Your task to perform on an android device: Look up the top rated headphones on Amazon. Image 0: 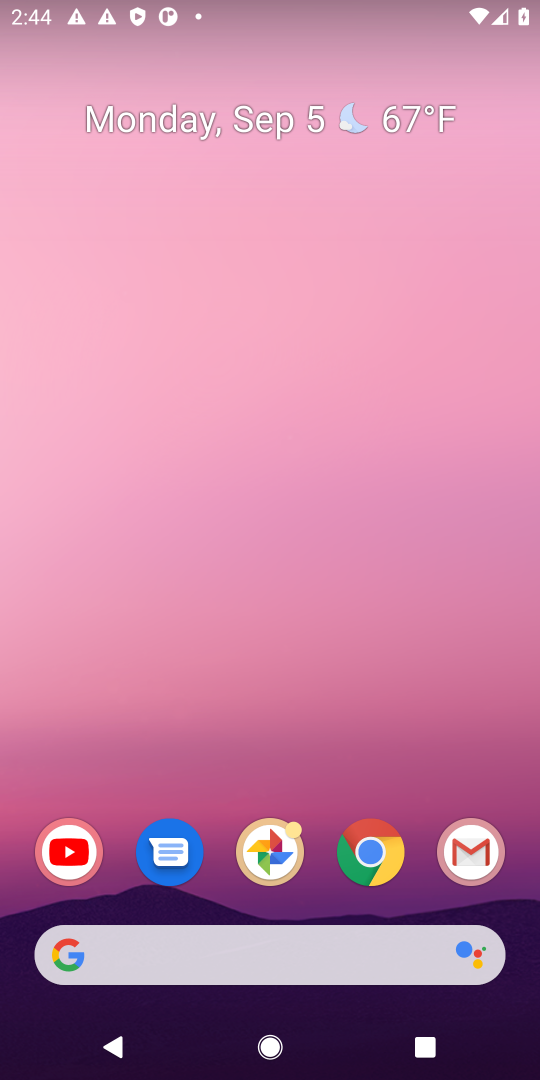
Step 0: click (367, 855)
Your task to perform on an android device: Look up the top rated headphones on Amazon. Image 1: 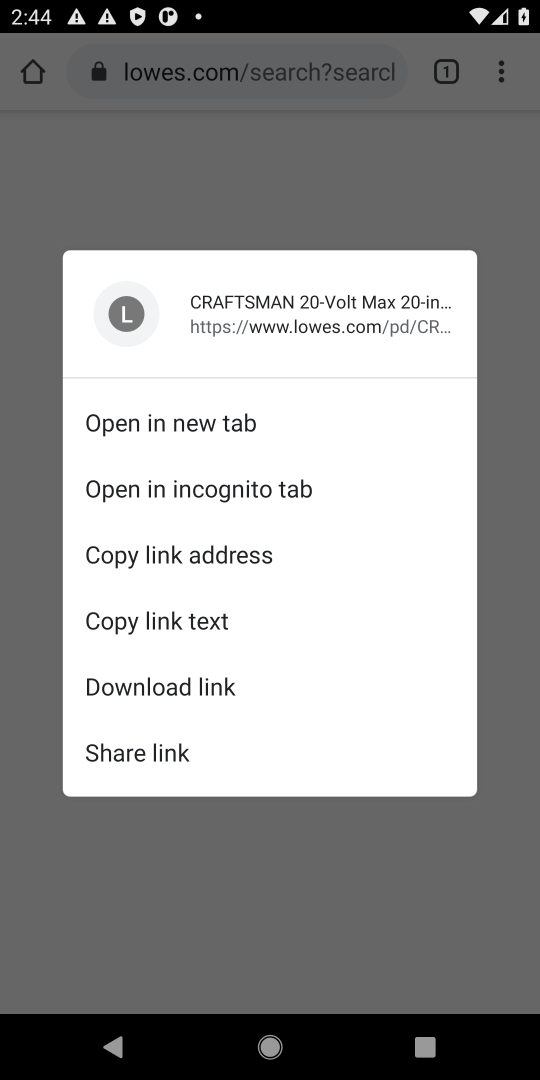
Step 1: click (367, 855)
Your task to perform on an android device: Look up the top rated headphones on Amazon. Image 2: 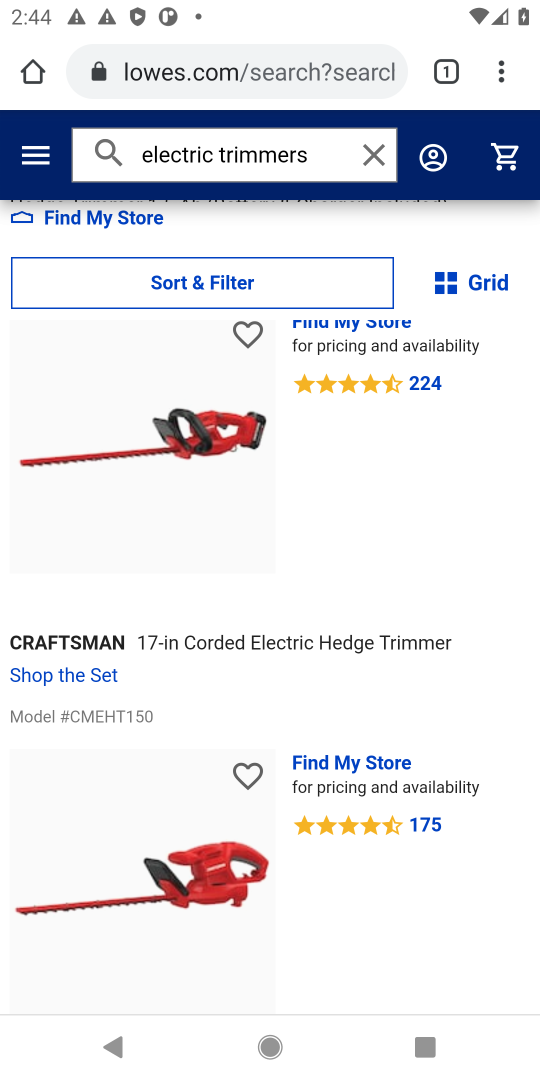
Step 2: click (35, 61)
Your task to perform on an android device: Look up the top rated headphones on Amazon. Image 3: 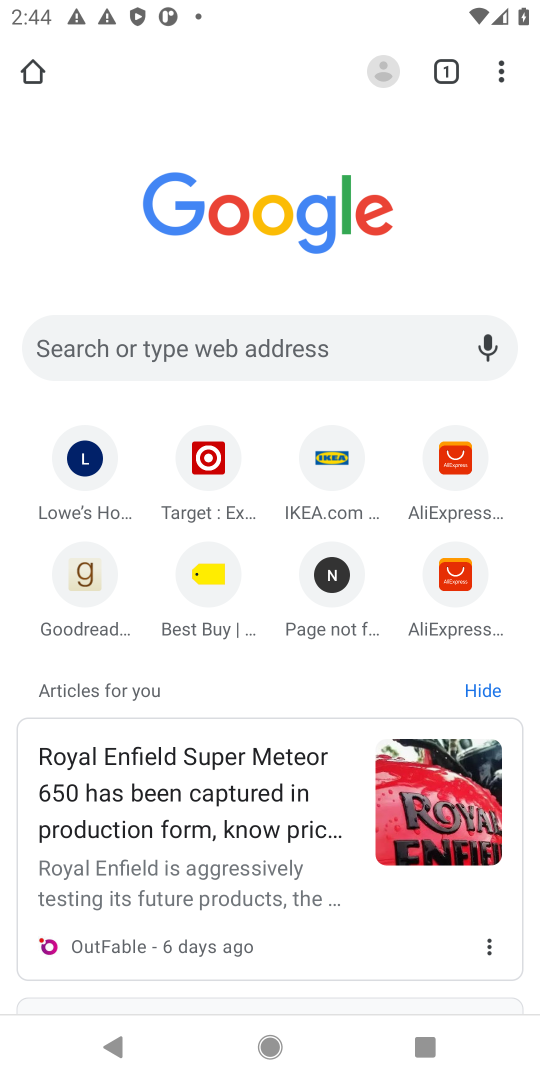
Step 3: click (185, 344)
Your task to perform on an android device: Look up the top rated headphones on Amazon. Image 4: 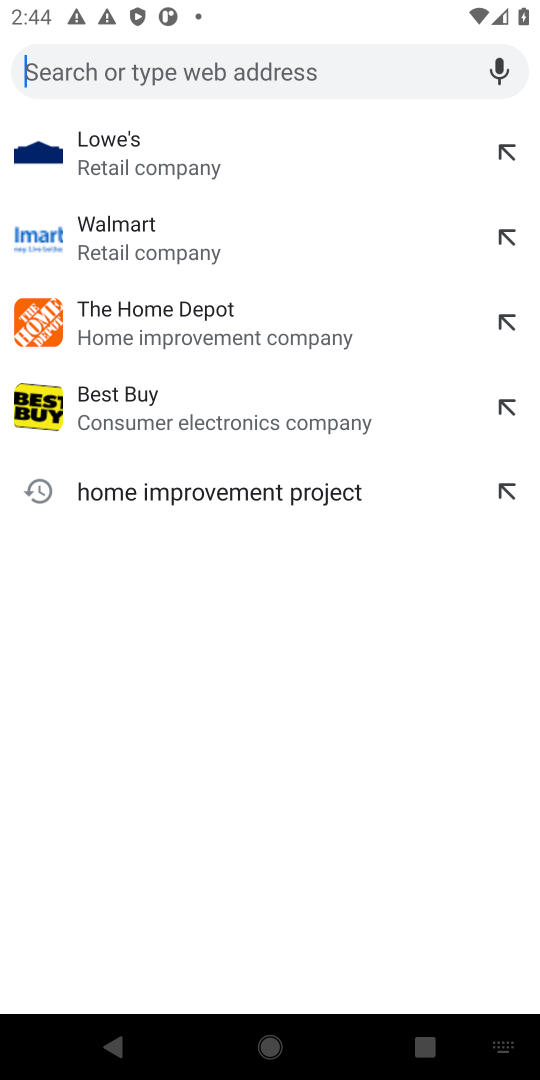
Step 4: type "Amazon"
Your task to perform on an android device: Look up the top rated headphones on Amazon. Image 5: 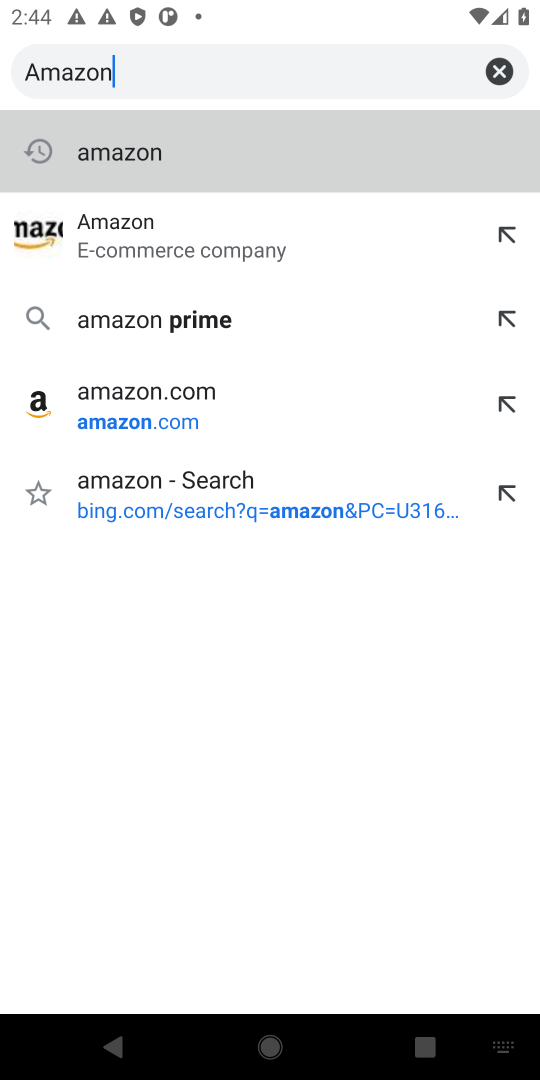
Step 5: click (103, 211)
Your task to perform on an android device: Look up the top rated headphones on Amazon. Image 6: 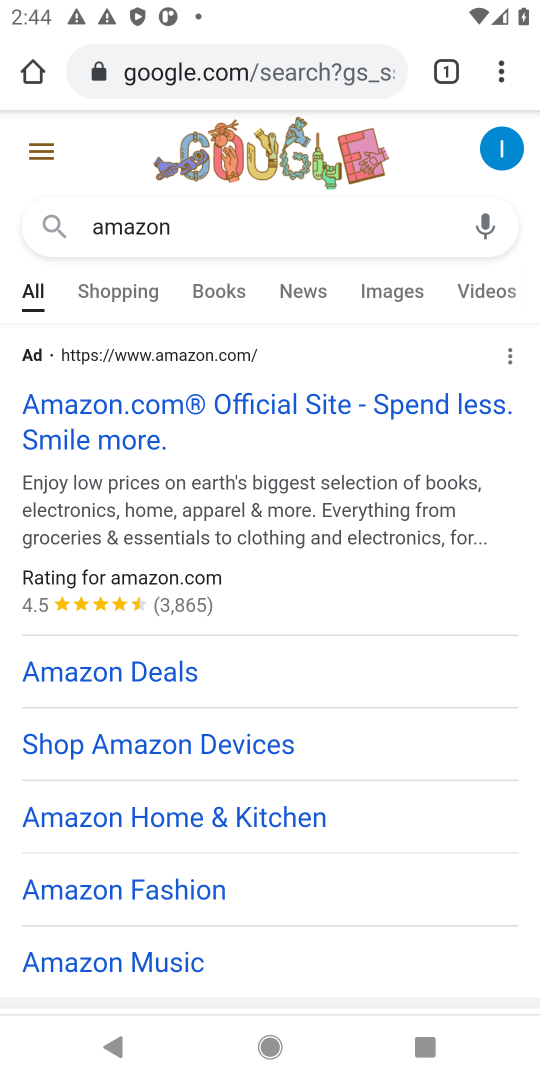
Step 6: click (88, 401)
Your task to perform on an android device: Look up the top rated headphones on Amazon. Image 7: 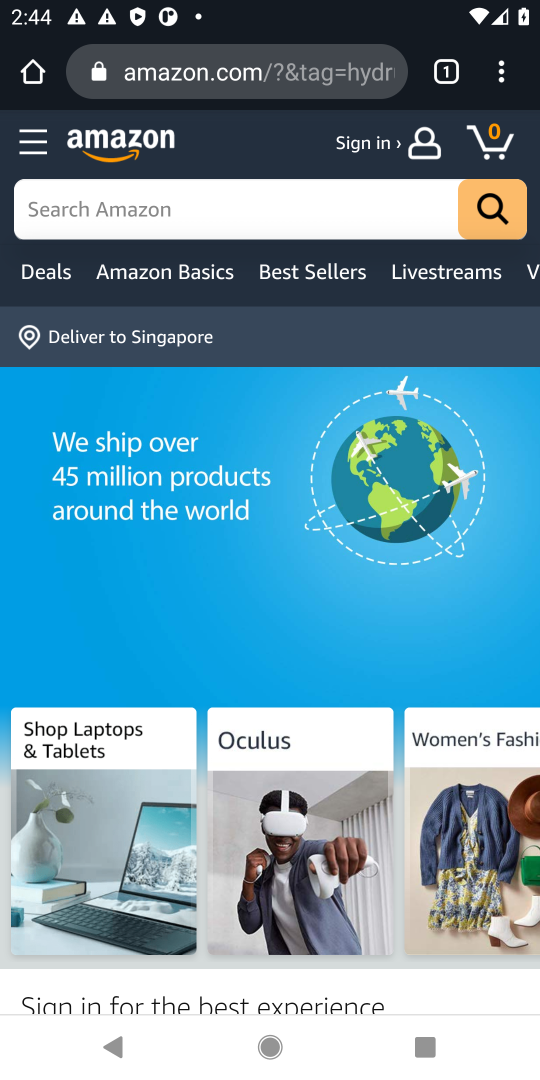
Step 7: click (149, 204)
Your task to perform on an android device: Look up the top rated headphones on Amazon. Image 8: 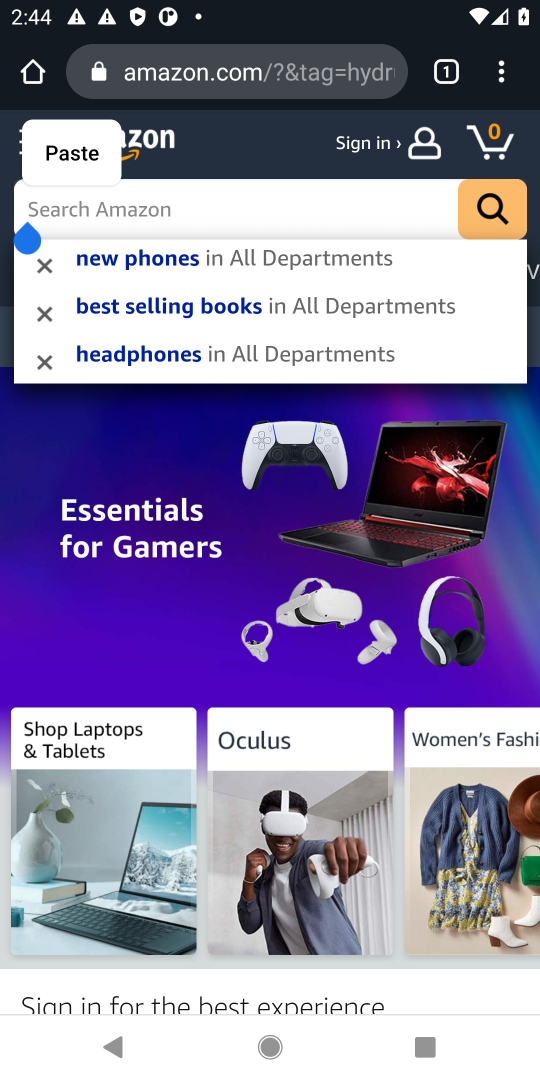
Step 8: click (131, 348)
Your task to perform on an android device: Look up the top rated headphones on Amazon. Image 9: 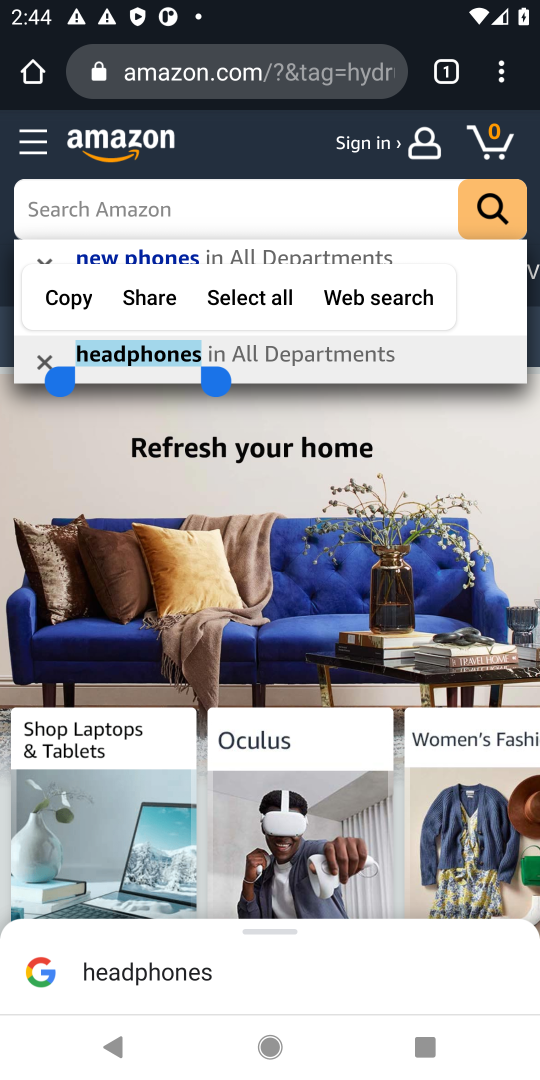
Step 9: click (256, 360)
Your task to perform on an android device: Look up the top rated headphones on Amazon. Image 10: 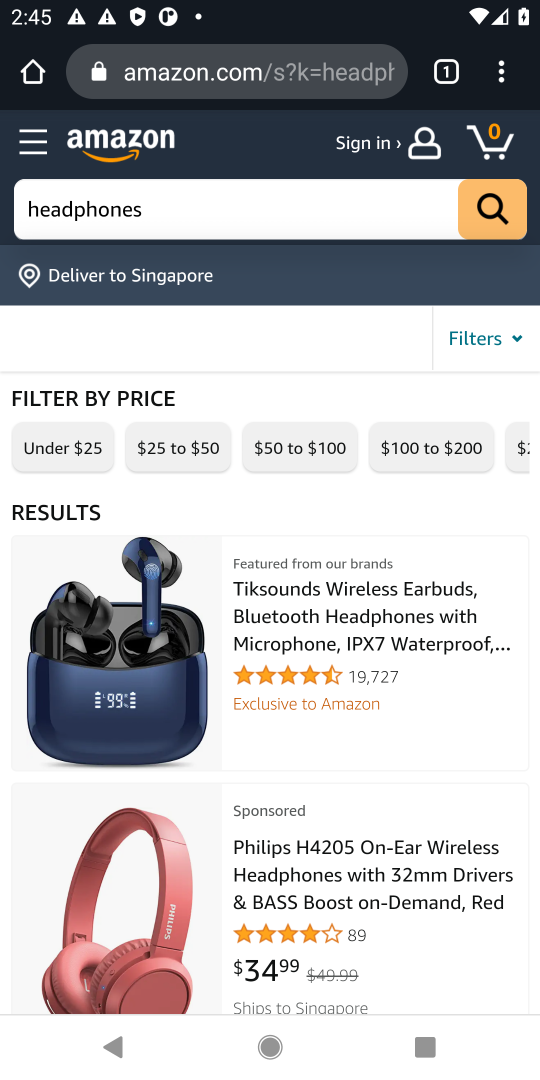
Step 10: task complete